Your task to perform on an android device: What's the weather? Image 0: 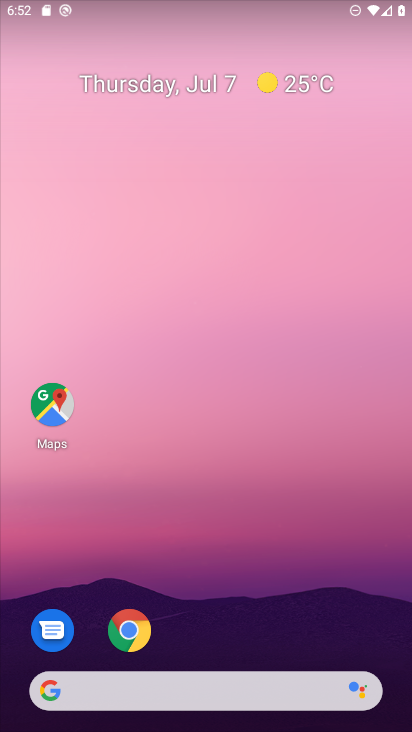
Step 0: click (240, 690)
Your task to perform on an android device: What's the weather? Image 1: 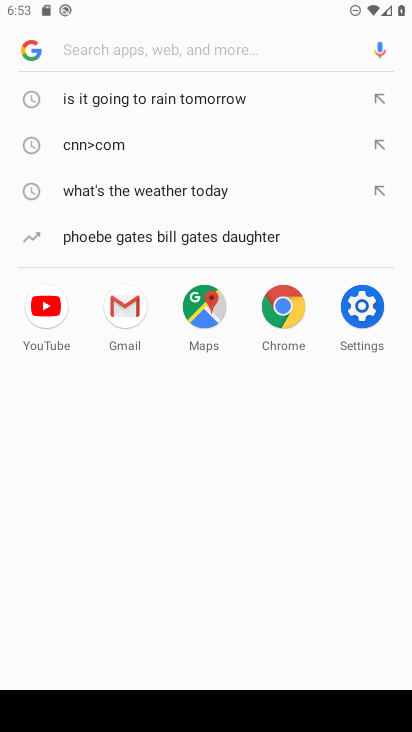
Step 1: type "weather"
Your task to perform on an android device: What's the weather? Image 2: 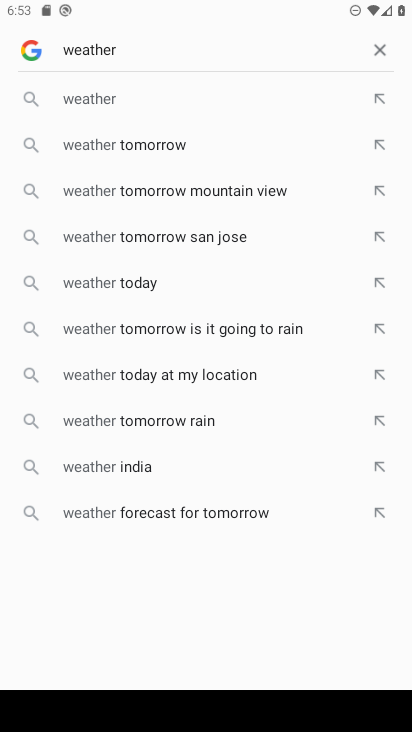
Step 2: click (86, 93)
Your task to perform on an android device: What's the weather? Image 3: 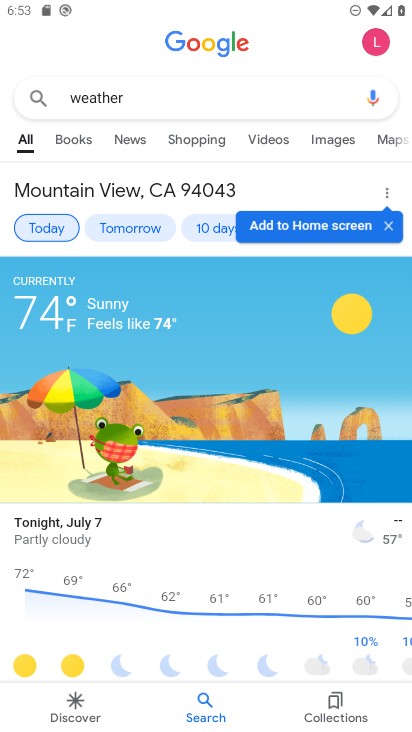
Step 3: task complete